Your task to perform on an android device: add a label to a message in the gmail app Image 0: 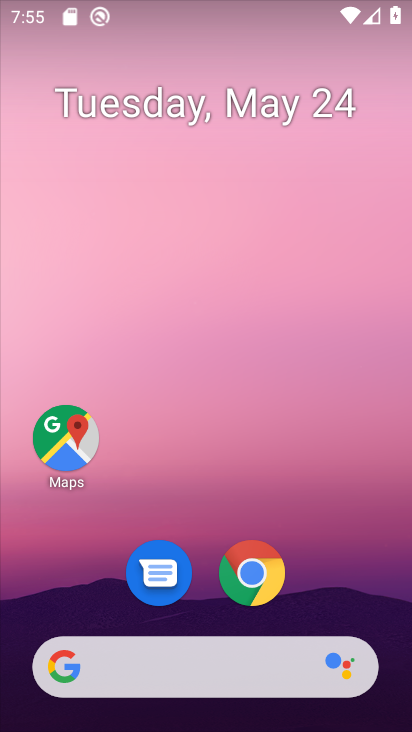
Step 0: drag from (349, 520) to (257, 7)
Your task to perform on an android device: add a label to a message in the gmail app Image 1: 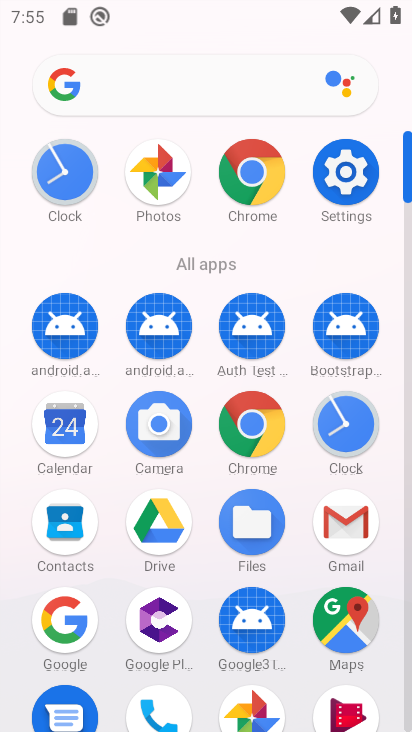
Step 1: click (344, 538)
Your task to perform on an android device: add a label to a message in the gmail app Image 2: 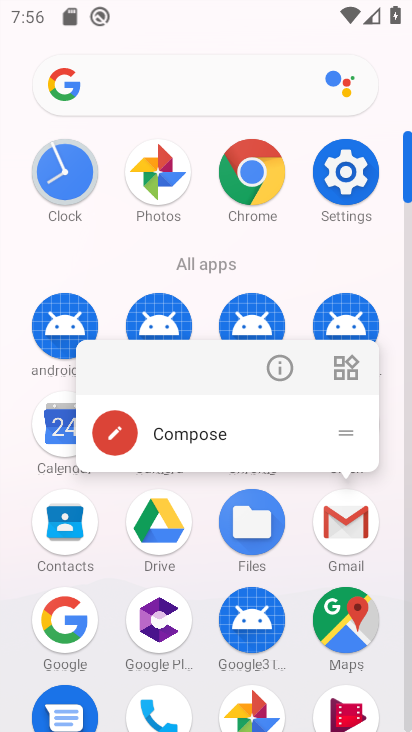
Step 2: click (333, 524)
Your task to perform on an android device: add a label to a message in the gmail app Image 3: 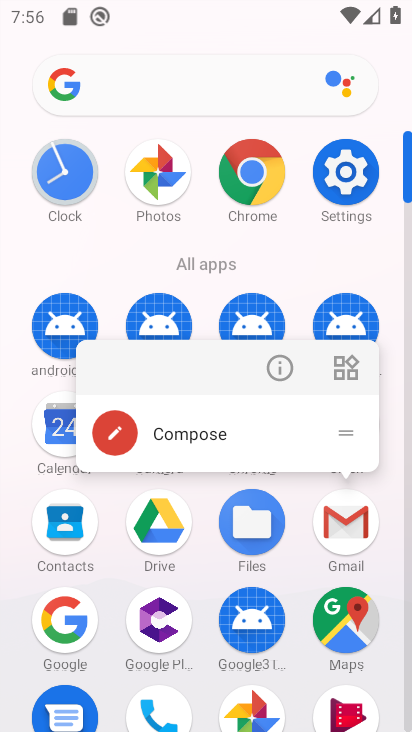
Step 3: click (333, 524)
Your task to perform on an android device: add a label to a message in the gmail app Image 4: 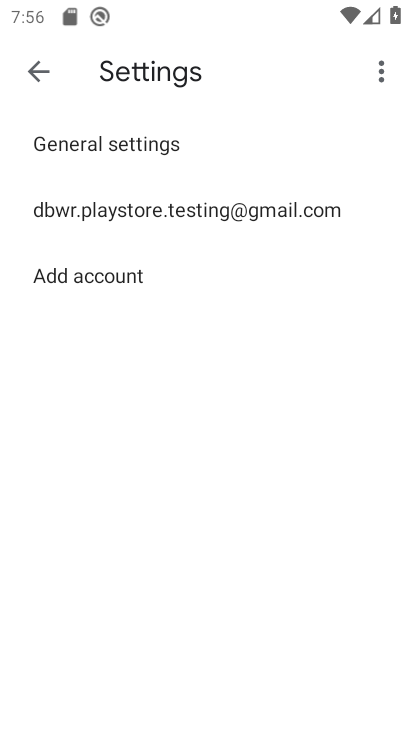
Step 4: click (65, 213)
Your task to perform on an android device: add a label to a message in the gmail app Image 5: 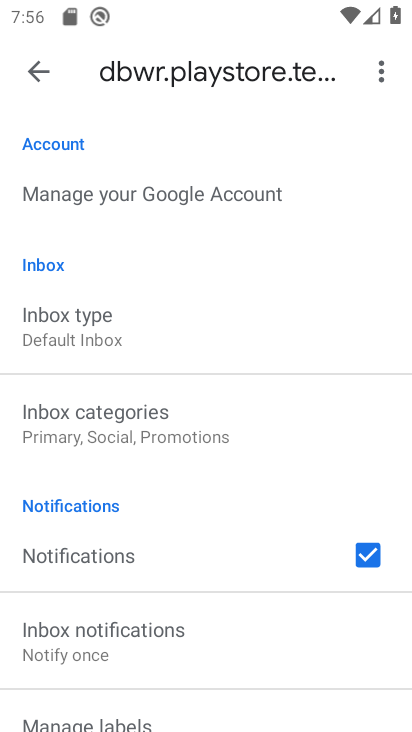
Step 5: click (22, 77)
Your task to perform on an android device: add a label to a message in the gmail app Image 6: 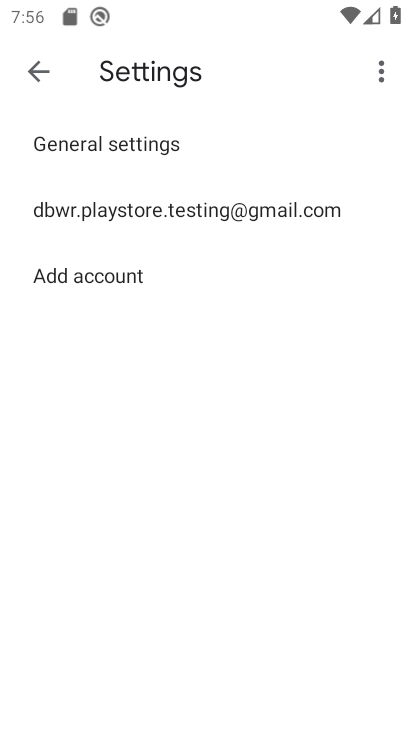
Step 6: click (19, 85)
Your task to perform on an android device: add a label to a message in the gmail app Image 7: 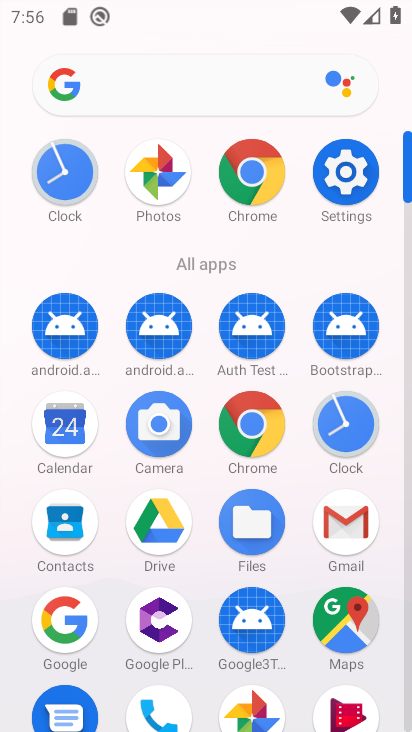
Step 7: click (333, 503)
Your task to perform on an android device: add a label to a message in the gmail app Image 8: 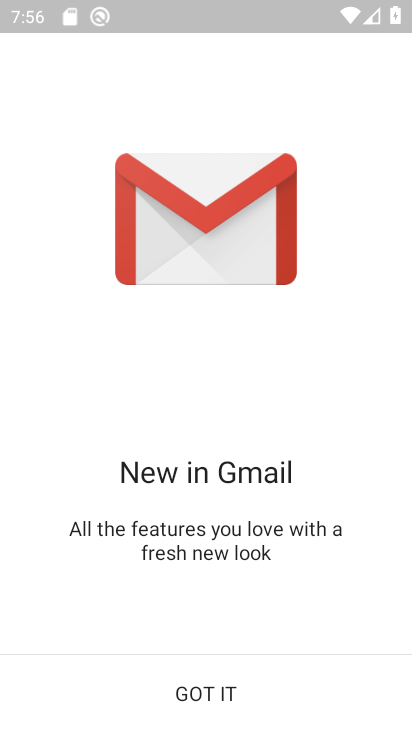
Step 8: click (185, 704)
Your task to perform on an android device: add a label to a message in the gmail app Image 9: 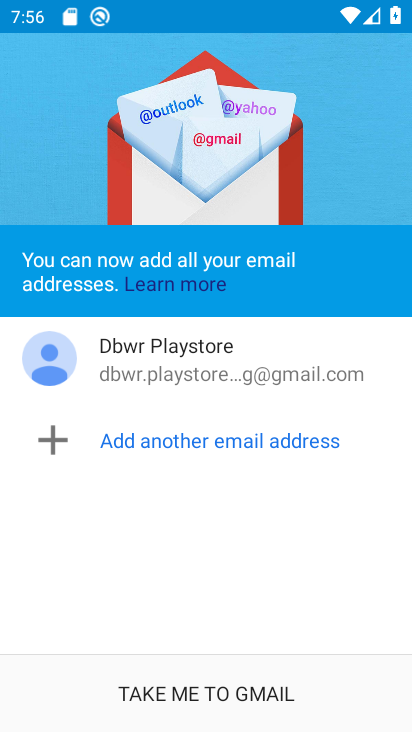
Step 9: click (187, 694)
Your task to perform on an android device: add a label to a message in the gmail app Image 10: 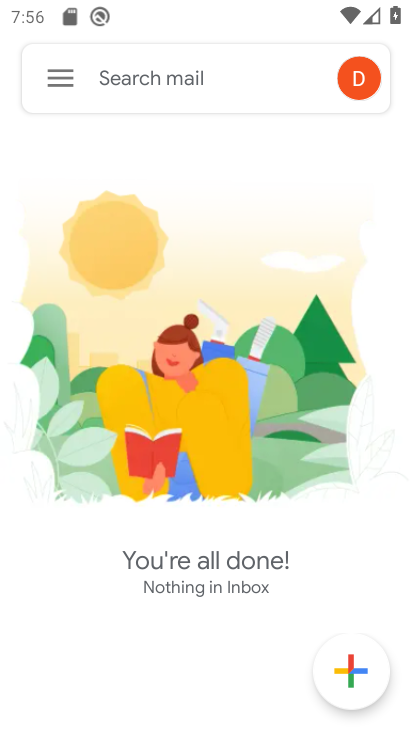
Step 10: task complete